Your task to perform on an android device: Go to ESPN.com Image 0: 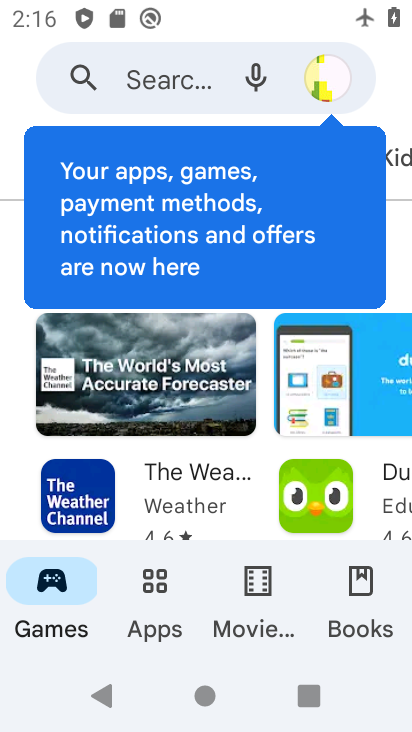
Step 0: press home button
Your task to perform on an android device: Go to ESPN.com Image 1: 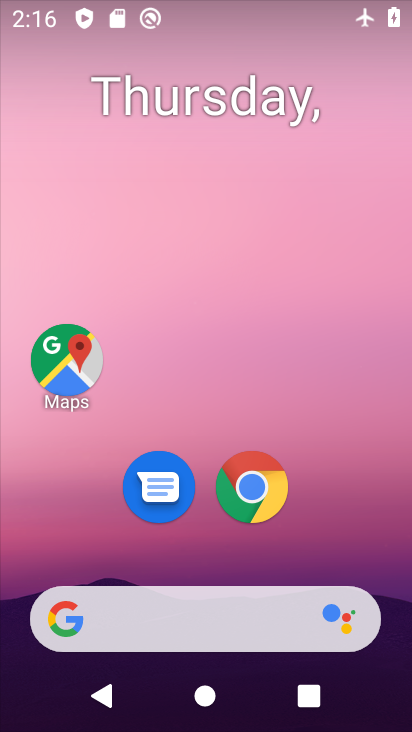
Step 1: click (253, 508)
Your task to perform on an android device: Go to ESPN.com Image 2: 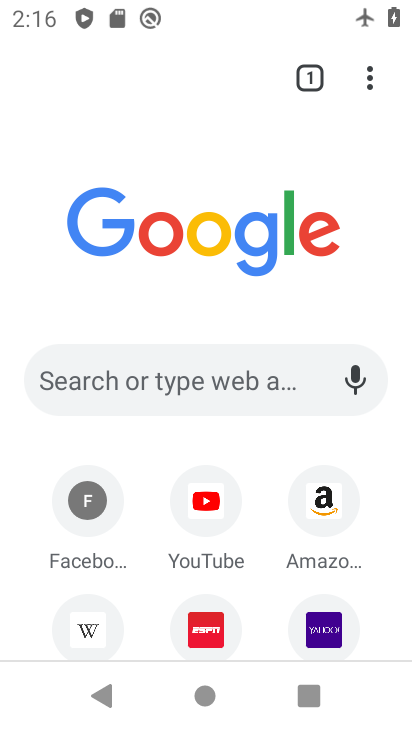
Step 2: drag from (250, 618) to (294, 321)
Your task to perform on an android device: Go to ESPN.com Image 3: 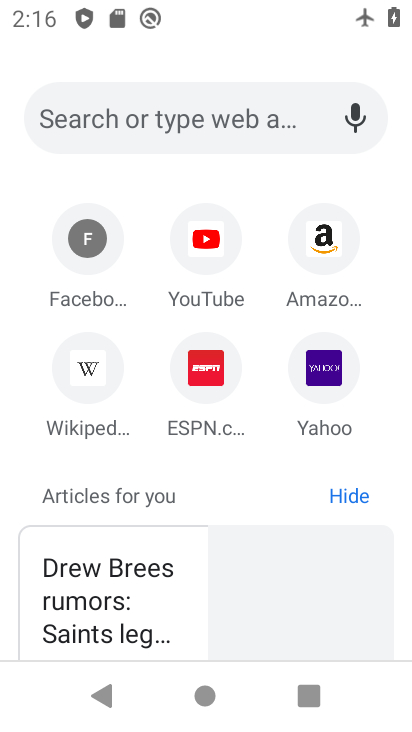
Step 3: click (197, 375)
Your task to perform on an android device: Go to ESPN.com Image 4: 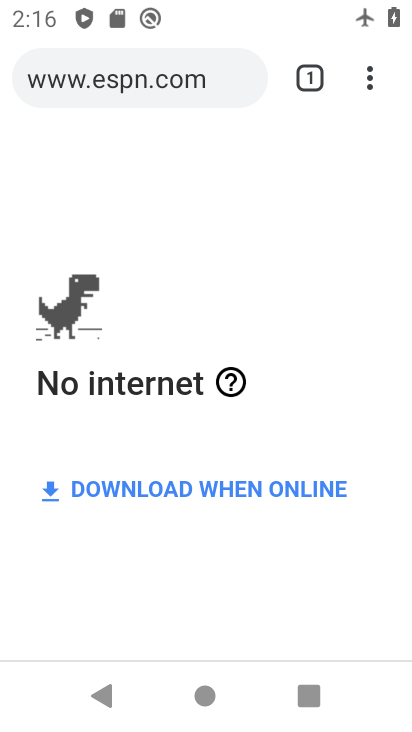
Step 4: drag from (255, 2) to (39, 562)
Your task to perform on an android device: Go to ESPN.com Image 5: 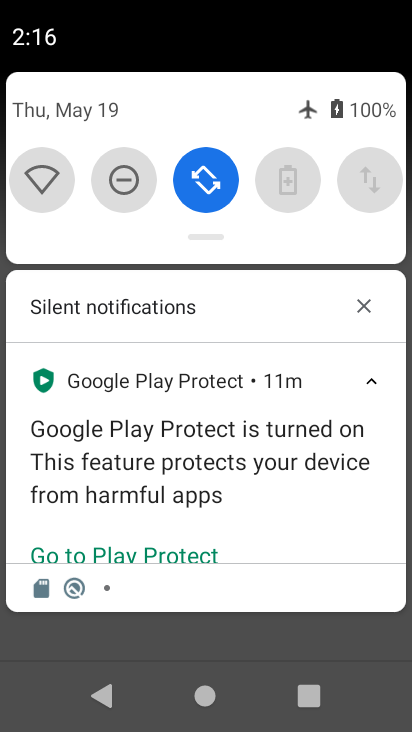
Step 5: drag from (320, 179) to (33, 182)
Your task to perform on an android device: Go to ESPN.com Image 6: 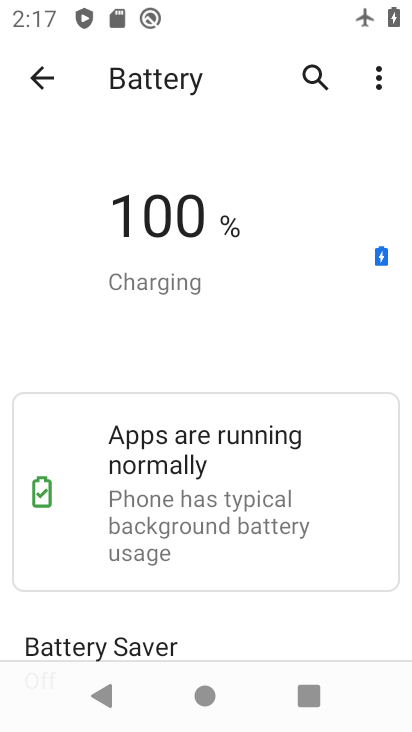
Step 6: press back button
Your task to perform on an android device: Go to ESPN.com Image 7: 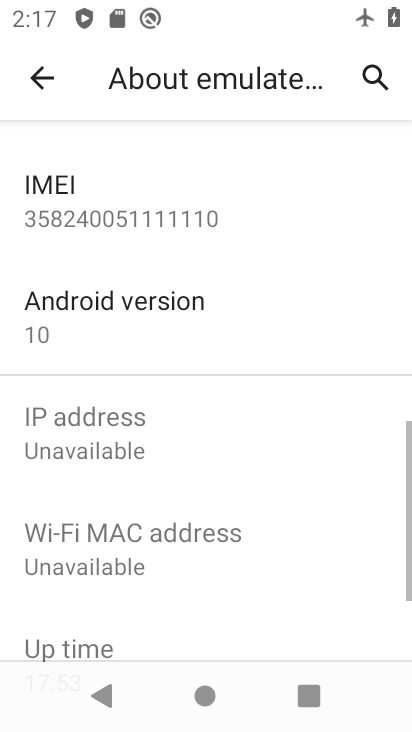
Step 7: press back button
Your task to perform on an android device: Go to ESPN.com Image 8: 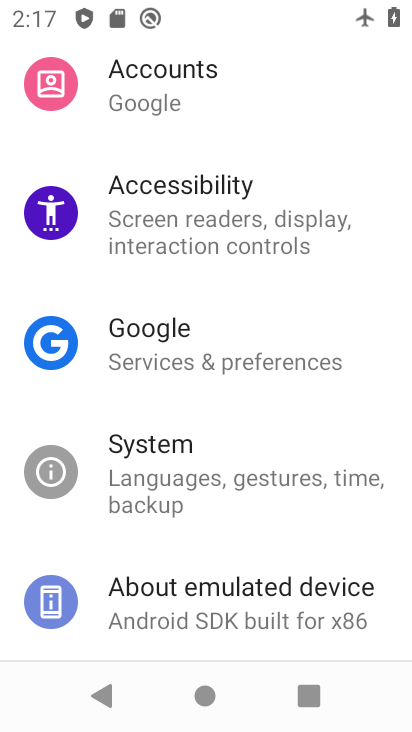
Step 8: drag from (344, 122) to (201, 561)
Your task to perform on an android device: Go to ESPN.com Image 9: 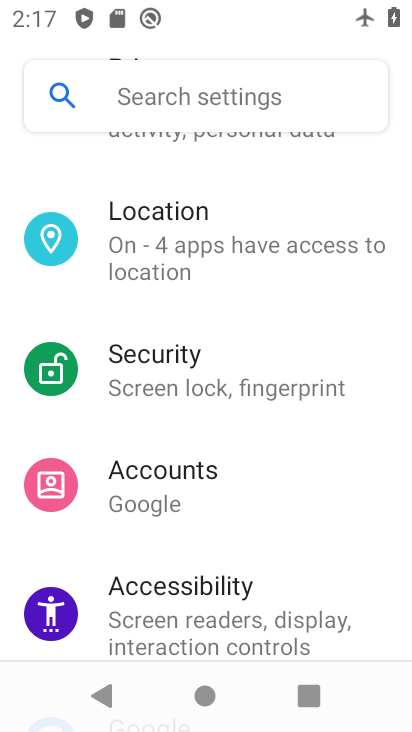
Step 9: drag from (270, 231) to (154, 591)
Your task to perform on an android device: Go to ESPN.com Image 10: 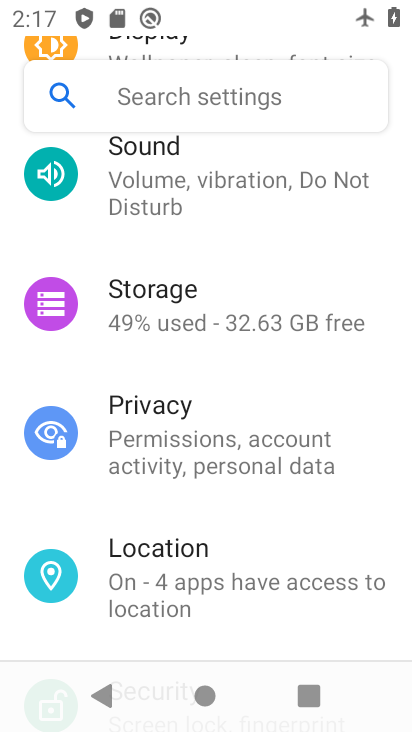
Step 10: drag from (273, 266) to (188, 570)
Your task to perform on an android device: Go to ESPN.com Image 11: 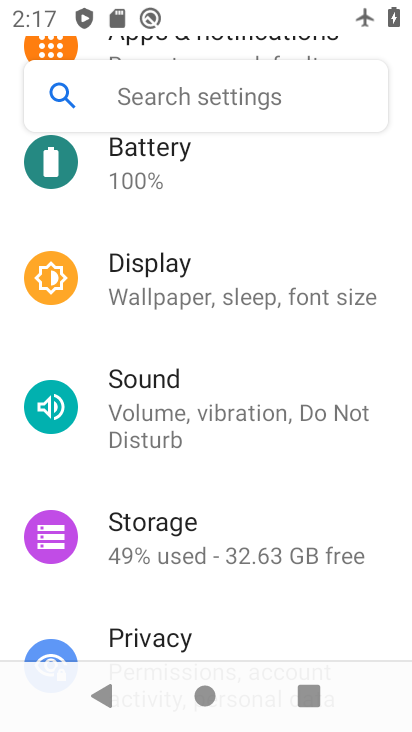
Step 11: drag from (250, 269) to (211, 578)
Your task to perform on an android device: Go to ESPN.com Image 12: 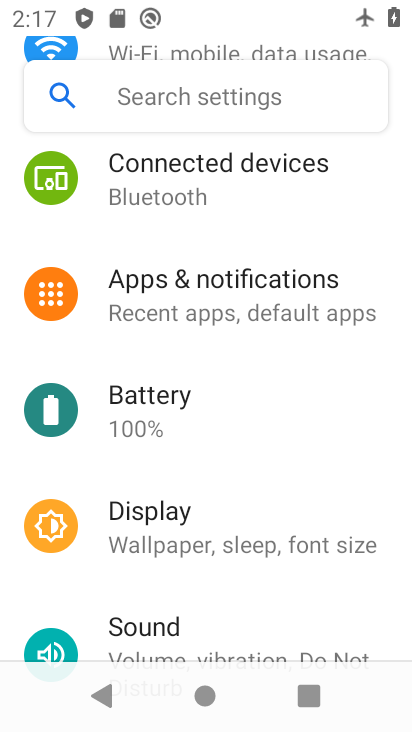
Step 12: drag from (255, 194) to (250, 502)
Your task to perform on an android device: Go to ESPN.com Image 13: 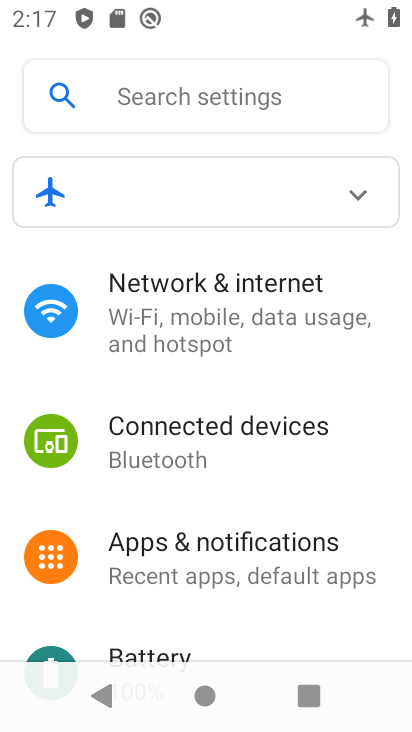
Step 13: click (231, 286)
Your task to perform on an android device: Go to ESPN.com Image 14: 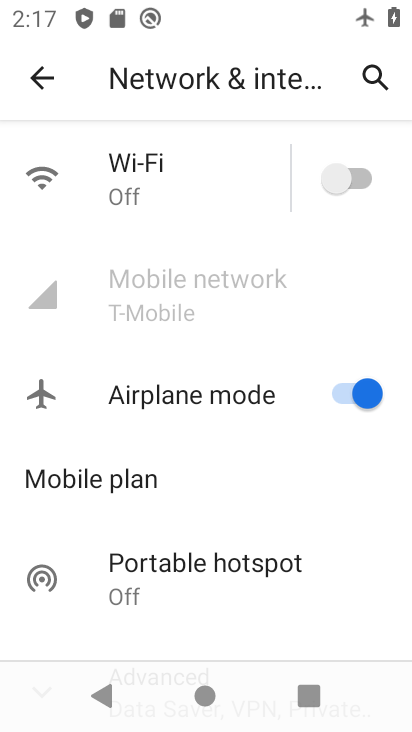
Step 14: click (348, 387)
Your task to perform on an android device: Go to ESPN.com Image 15: 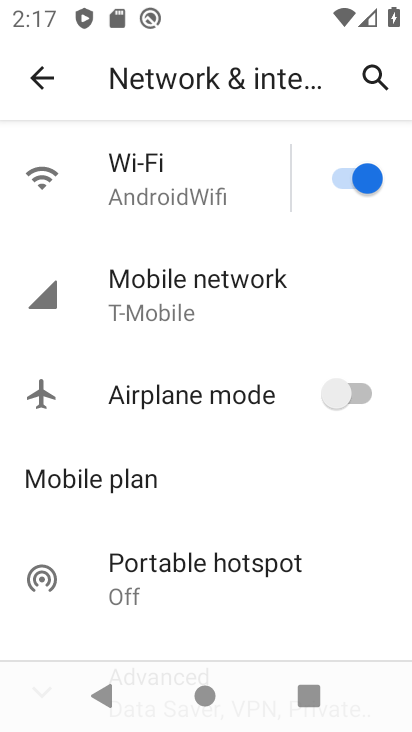
Step 15: press home button
Your task to perform on an android device: Go to ESPN.com Image 16: 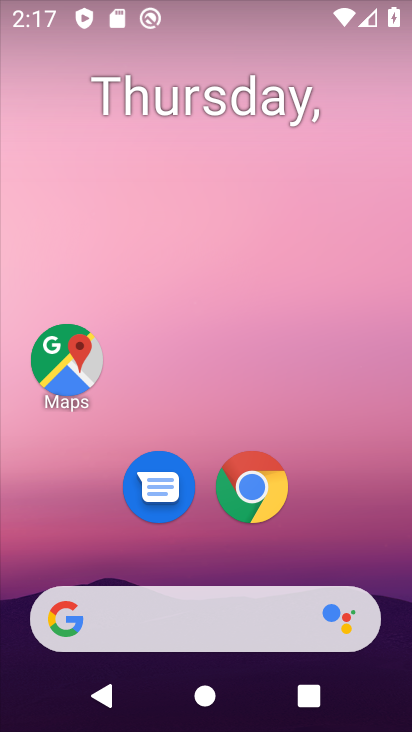
Step 16: click (248, 493)
Your task to perform on an android device: Go to ESPN.com Image 17: 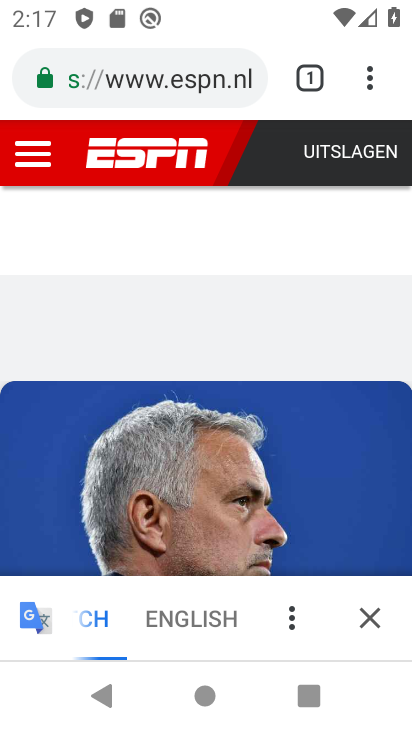
Step 17: task complete